Your task to perform on an android device: Search for sushi restaurants on Maps Image 0: 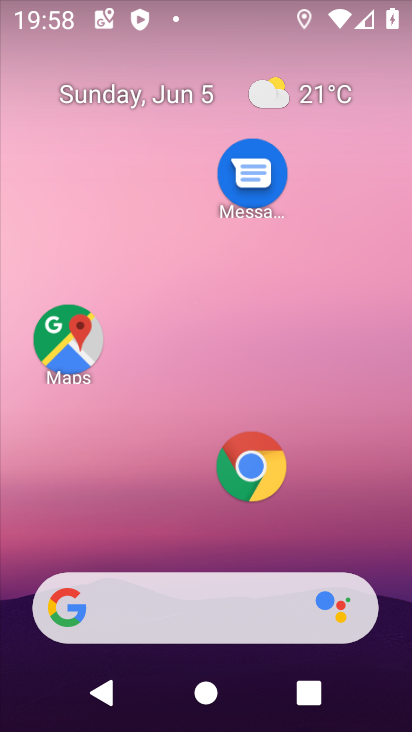
Step 0: drag from (204, 527) to (224, 219)
Your task to perform on an android device: Search for sushi restaurants on Maps Image 1: 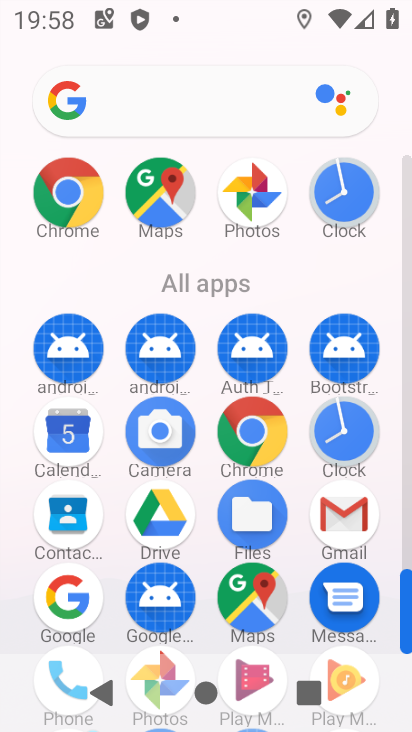
Step 1: drag from (203, 603) to (218, 303)
Your task to perform on an android device: Search for sushi restaurants on Maps Image 2: 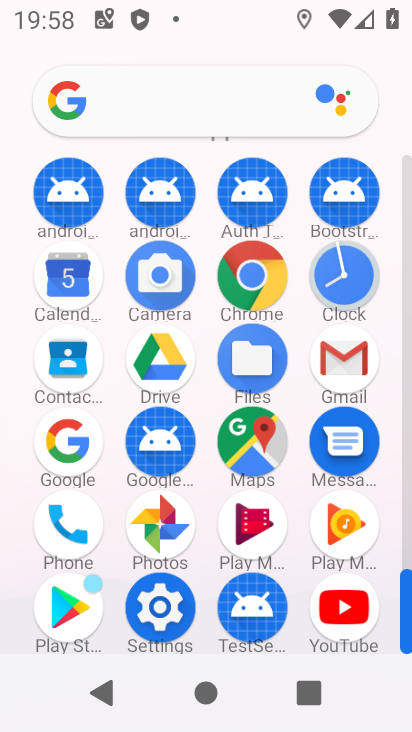
Step 2: click (258, 430)
Your task to perform on an android device: Search for sushi restaurants on Maps Image 3: 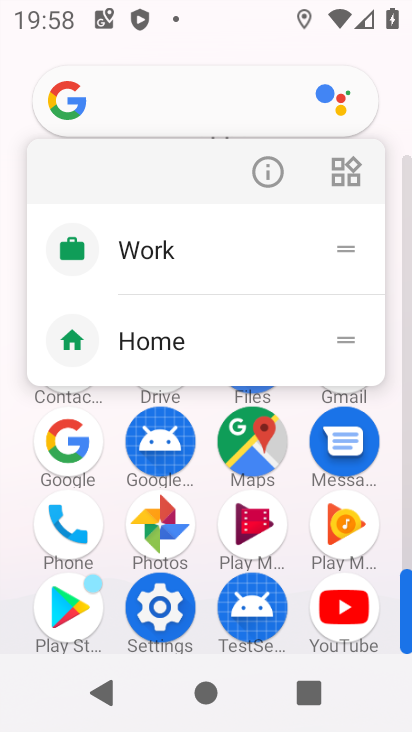
Step 3: click (262, 170)
Your task to perform on an android device: Search for sushi restaurants on Maps Image 4: 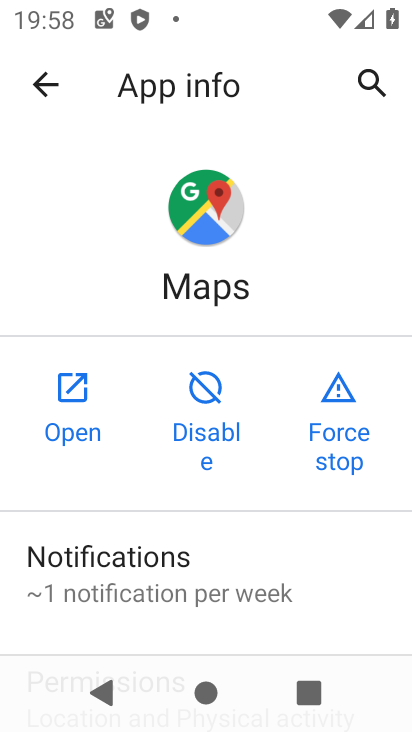
Step 4: click (61, 410)
Your task to perform on an android device: Search for sushi restaurants on Maps Image 5: 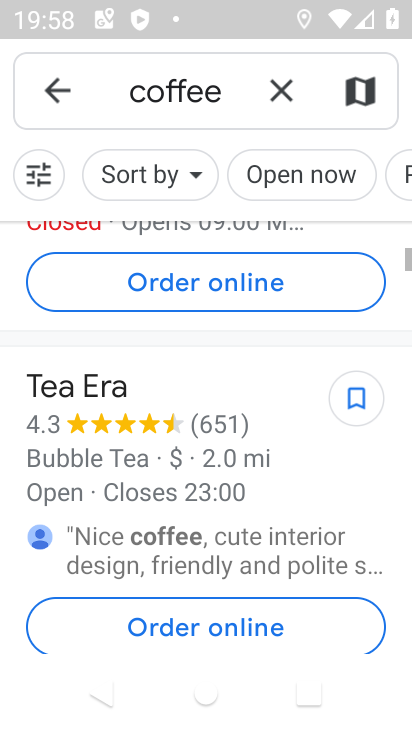
Step 5: drag from (199, 355) to (326, 663)
Your task to perform on an android device: Search for sushi restaurants on Maps Image 6: 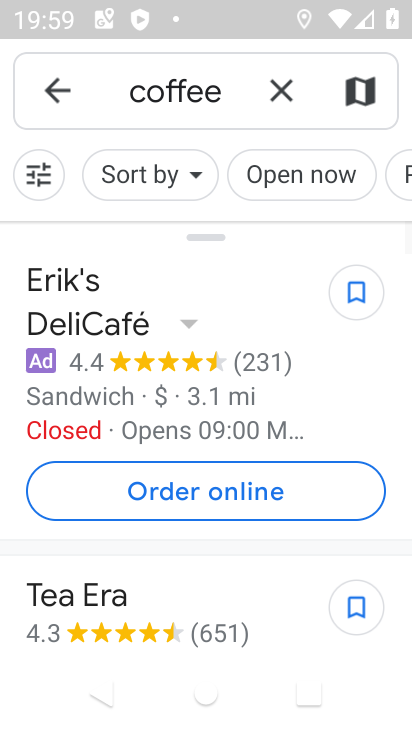
Step 6: click (283, 82)
Your task to perform on an android device: Search for sushi restaurants on Maps Image 7: 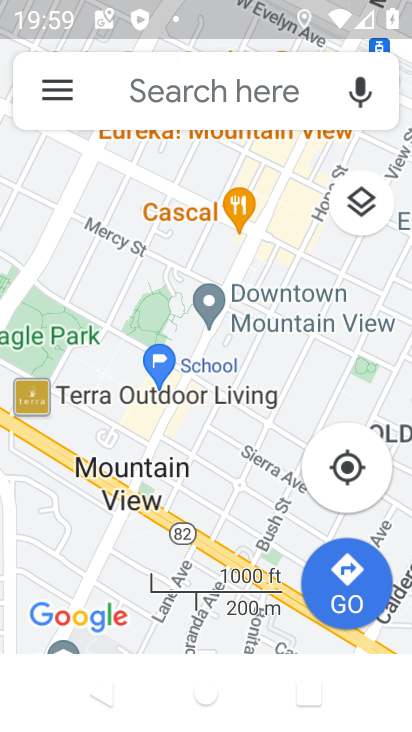
Step 7: click (133, 86)
Your task to perform on an android device: Search for sushi restaurants on Maps Image 8: 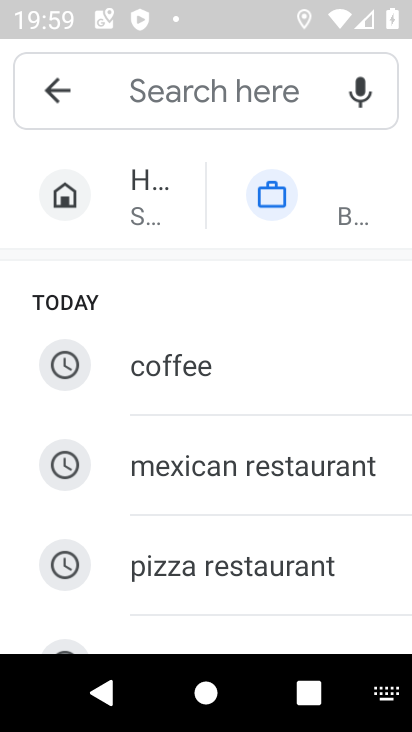
Step 8: drag from (194, 537) to (236, 213)
Your task to perform on an android device: Search for sushi restaurants on Maps Image 9: 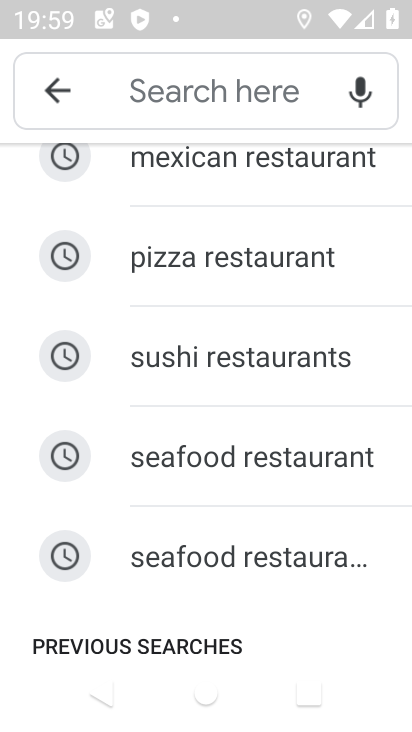
Step 9: click (150, 374)
Your task to perform on an android device: Search for sushi restaurants on Maps Image 10: 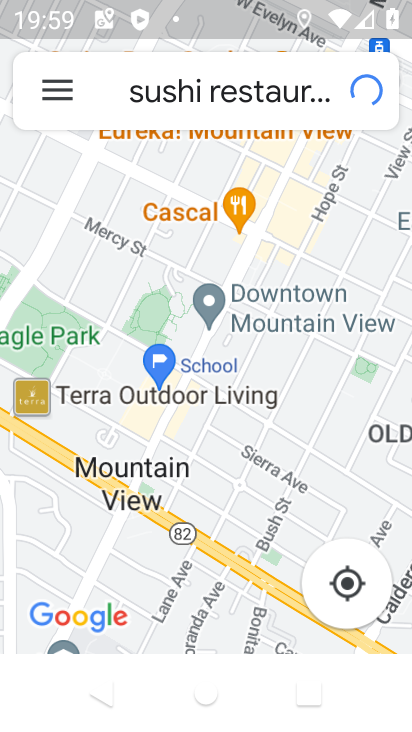
Step 10: task complete